Your task to perform on an android device: move an email to a new category in the gmail app Image 0: 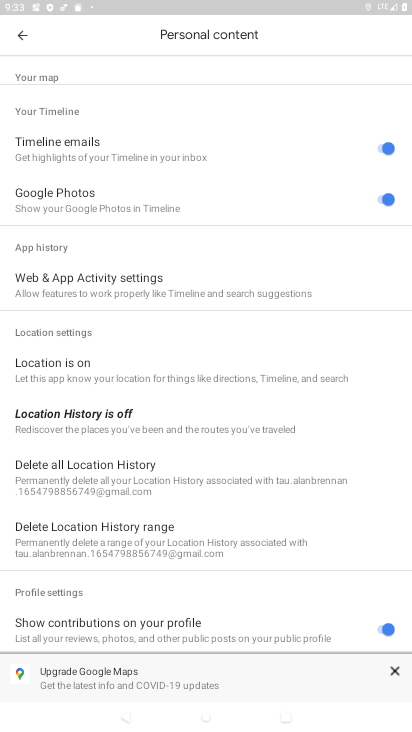
Step 0: press home button
Your task to perform on an android device: move an email to a new category in the gmail app Image 1: 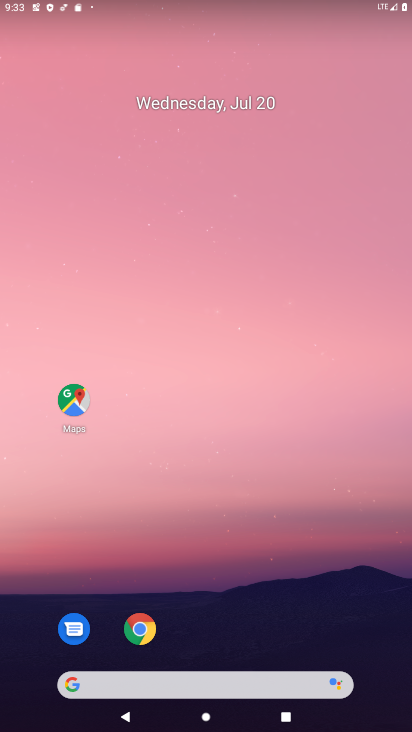
Step 1: drag from (287, 627) to (315, 55)
Your task to perform on an android device: move an email to a new category in the gmail app Image 2: 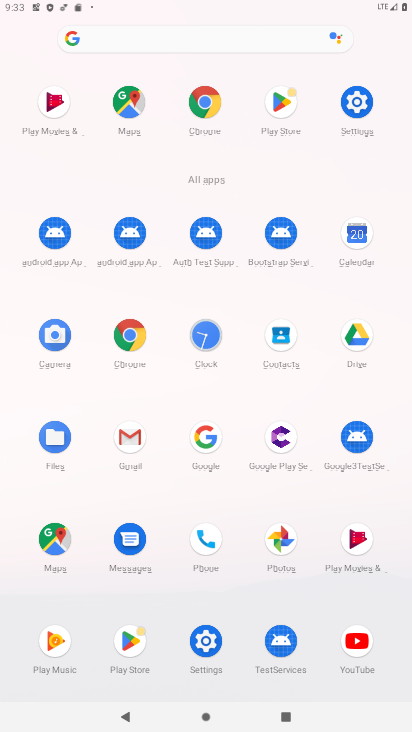
Step 2: click (129, 435)
Your task to perform on an android device: move an email to a new category in the gmail app Image 3: 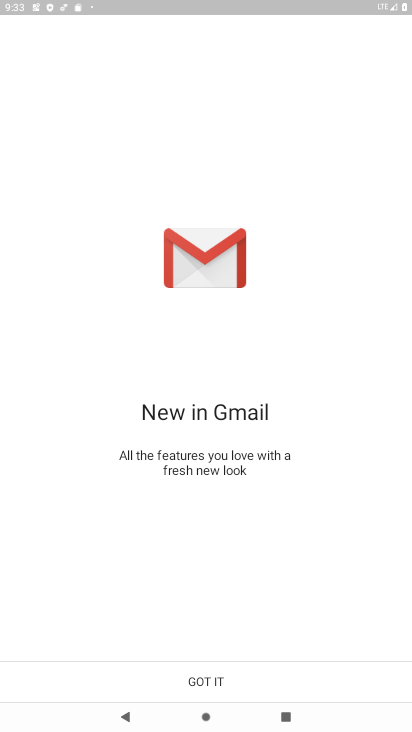
Step 3: click (239, 668)
Your task to perform on an android device: move an email to a new category in the gmail app Image 4: 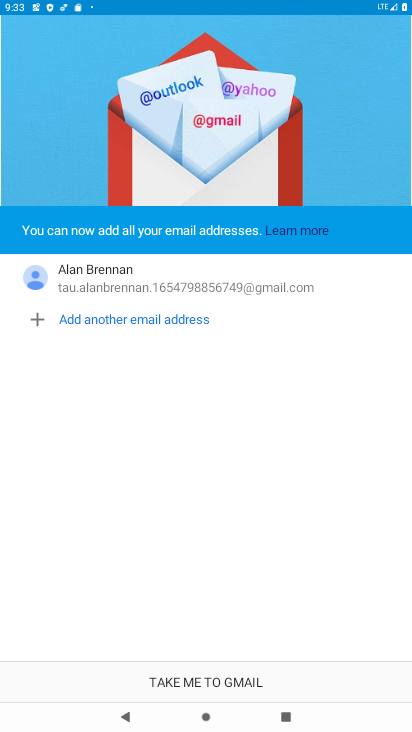
Step 4: click (230, 685)
Your task to perform on an android device: move an email to a new category in the gmail app Image 5: 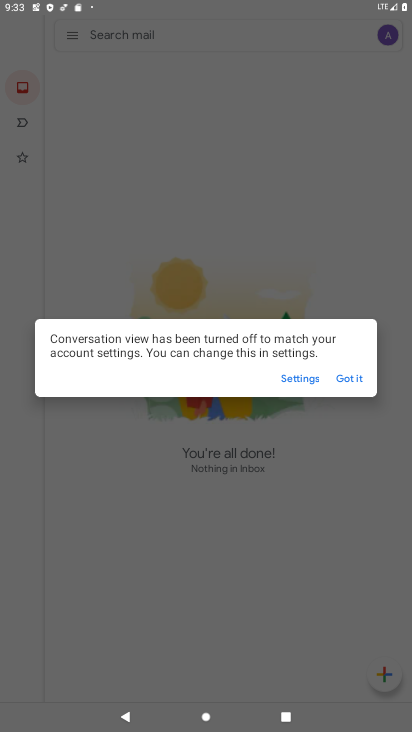
Step 5: click (348, 380)
Your task to perform on an android device: move an email to a new category in the gmail app Image 6: 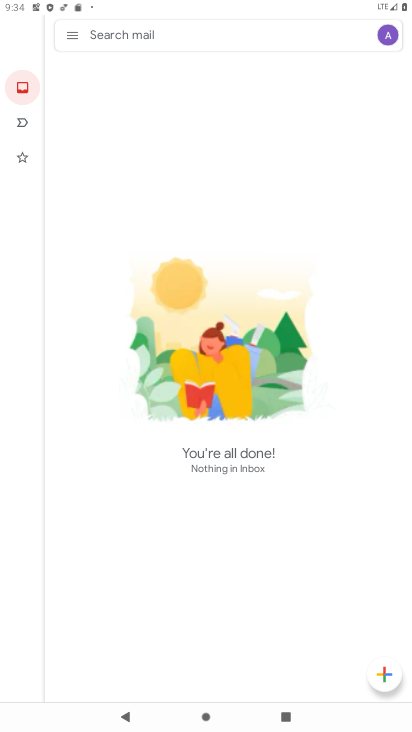
Step 6: press home button
Your task to perform on an android device: move an email to a new category in the gmail app Image 7: 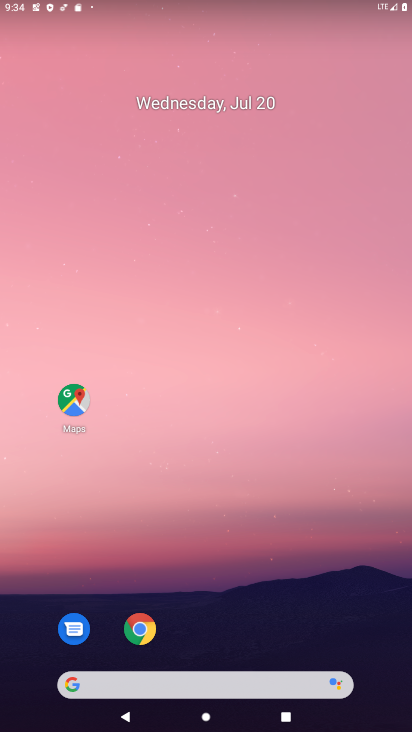
Step 7: drag from (351, 613) to (388, 116)
Your task to perform on an android device: move an email to a new category in the gmail app Image 8: 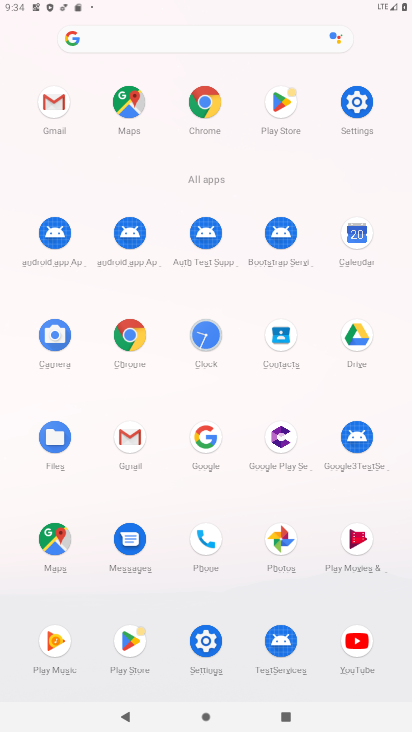
Step 8: click (122, 433)
Your task to perform on an android device: move an email to a new category in the gmail app Image 9: 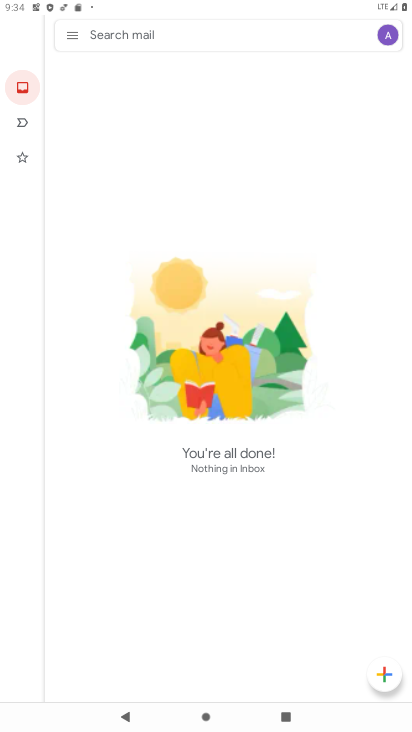
Step 9: task complete